Your task to perform on an android device: Open accessibility settings Image 0: 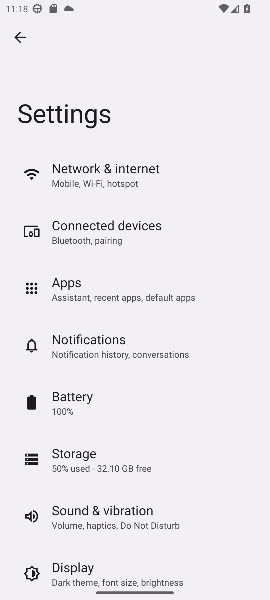
Step 0: drag from (109, 559) to (107, 295)
Your task to perform on an android device: Open accessibility settings Image 1: 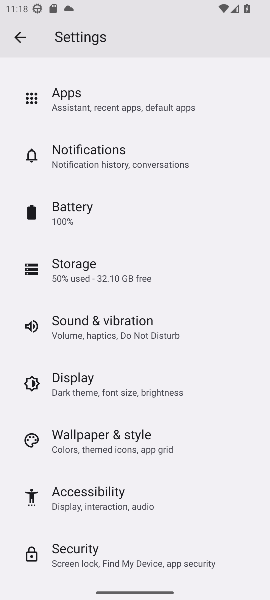
Step 1: click (171, 509)
Your task to perform on an android device: Open accessibility settings Image 2: 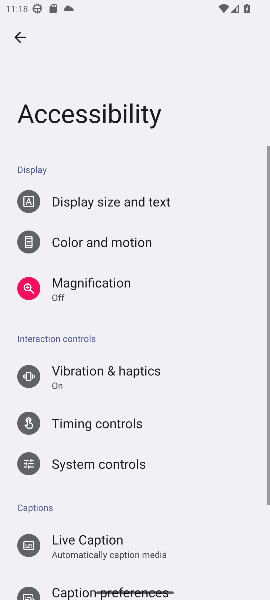
Step 2: task complete